Your task to perform on an android device: change timer sound Image 0: 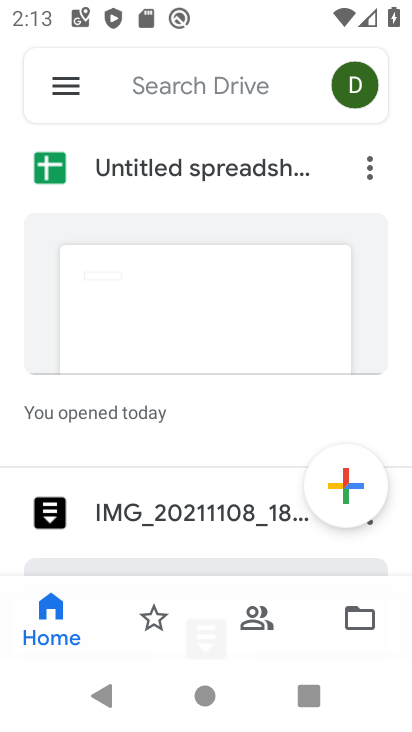
Step 0: press home button
Your task to perform on an android device: change timer sound Image 1: 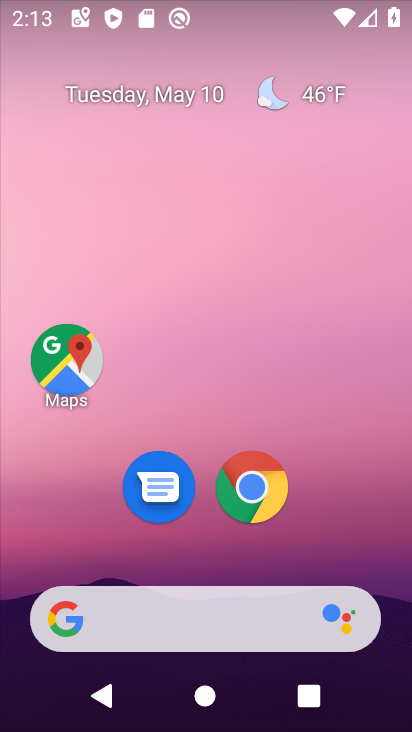
Step 1: drag from (375, 500) to (388, 114)
Your task to perform on an android device: change timer sound Image 2: 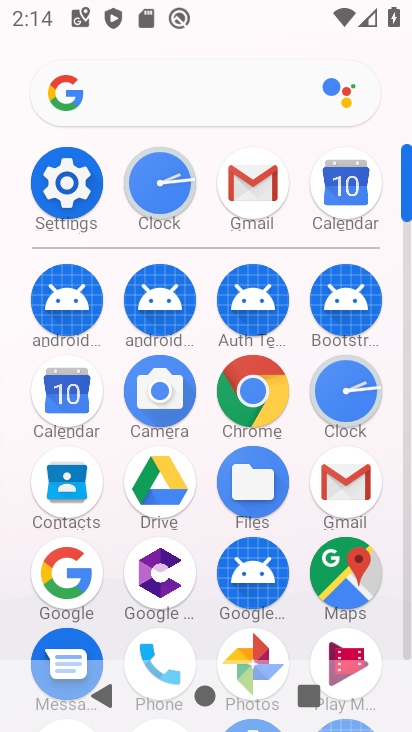
Step 2: click (64, 184)
Your task to perform on an android device: change timer sound Image 3: 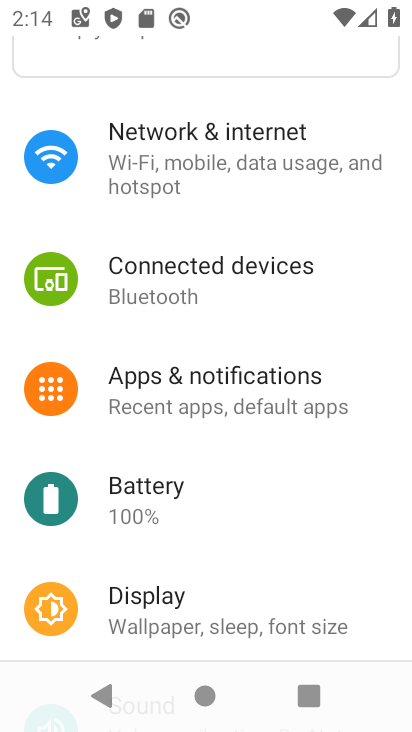
Step 3: drag from (269, 540) to (294, 210)
Your task to perform on an android device: change timer sound Image 4: 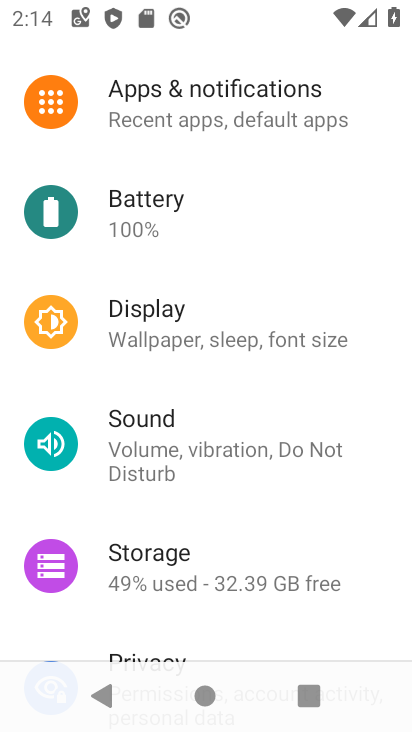
Step 4: click (202, 436)
Your task to perform on an android device: change timer sound Image 5: 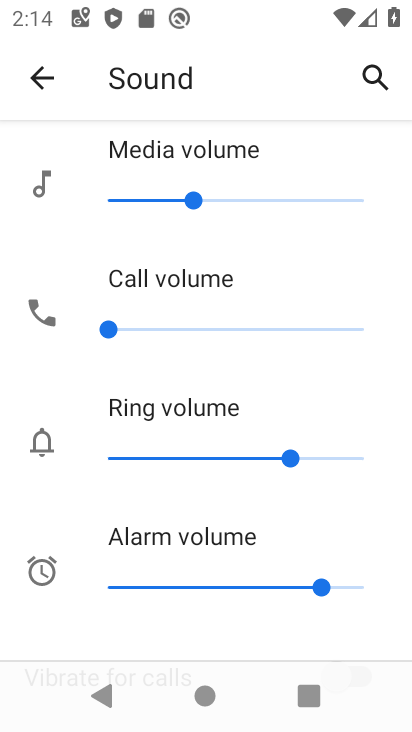
Step 5: task complete